Your task to perform on an android device: turn pop-ups on in chrome Image 0: 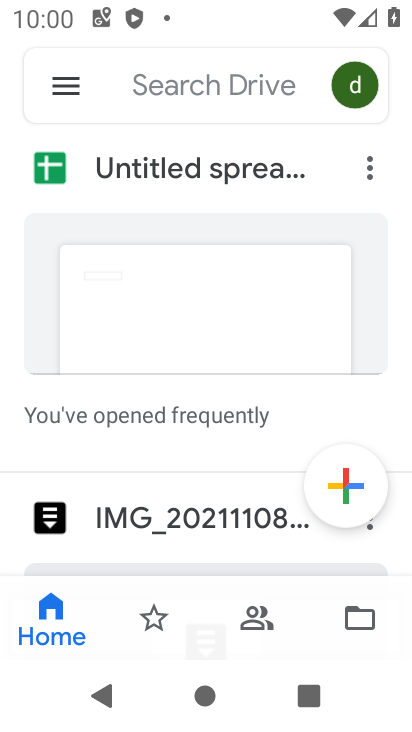
Step 0: press home button
Your task to perform on an android device: turn pop-ups on in chrome Image 1: 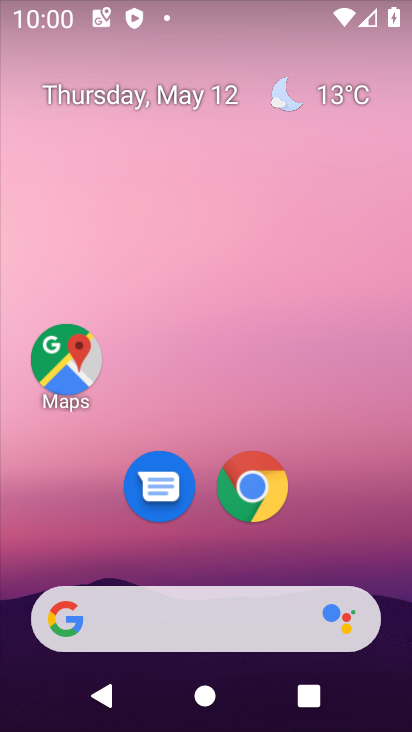
Step 1: click (274, 488)
Your task to perform on an android device: turn pop-ups on in chrome Image 2: 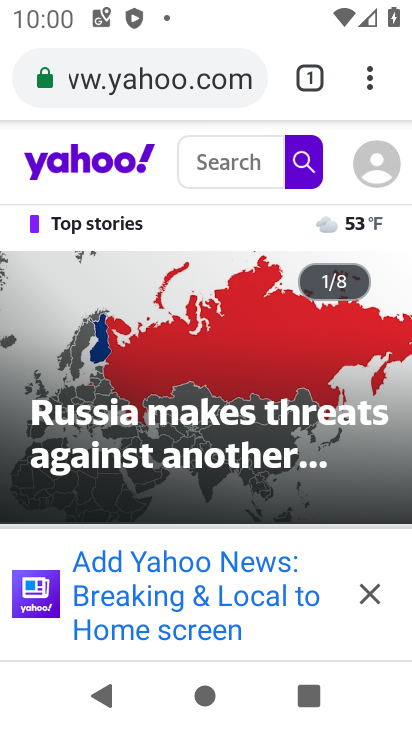
Step 2: click (366, 85)
Your task to perform on an android device: turn pop-ups on in chrome Image 3: 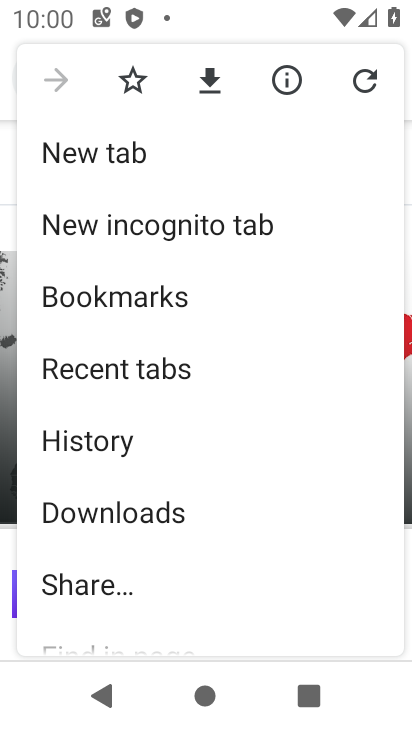
Step 3: drag from (265, 528) to (237, 307)
Your task to perform on an android device: turn pop-ups on in chrome Image 4: 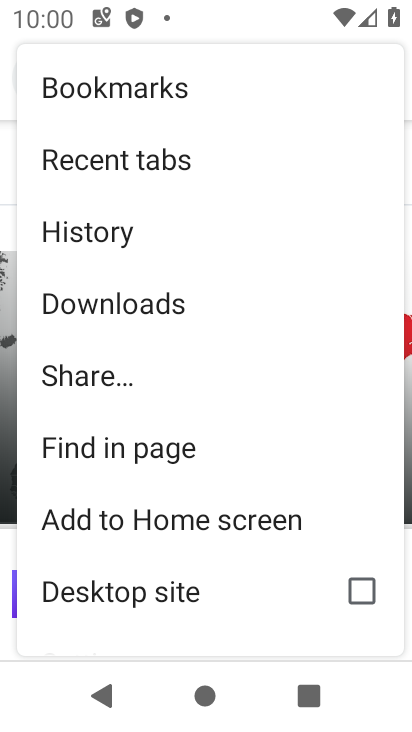
Step 4: drag from (234, 533) to (205, 336)
Your task to perform on an android device: turn pop-ups on in chrome Image 5: 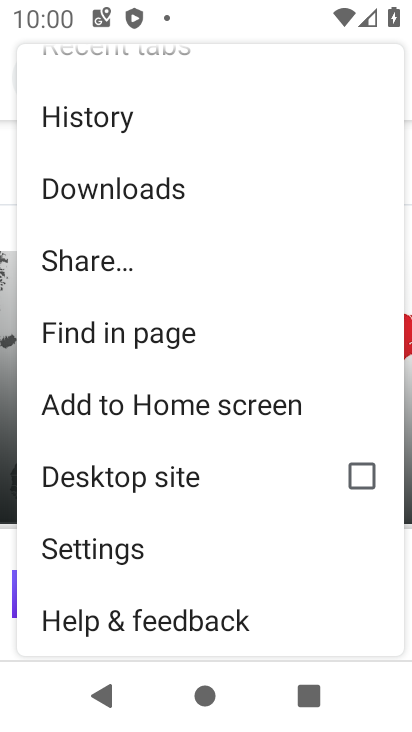
Step 5: click (144, 546)
Your task to perform on an android device: turn pop-ups on in chrome Image 6: 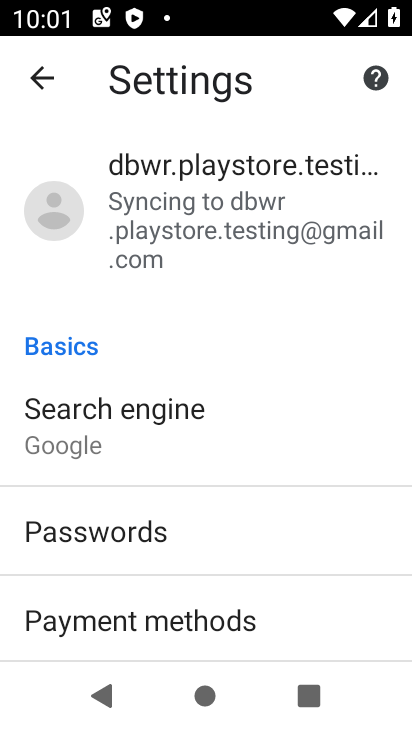
Step 6: drag from (297, 554) to (227, 298)
Your task to perform on an android device: turn pop-ups on in chrome Image 7: 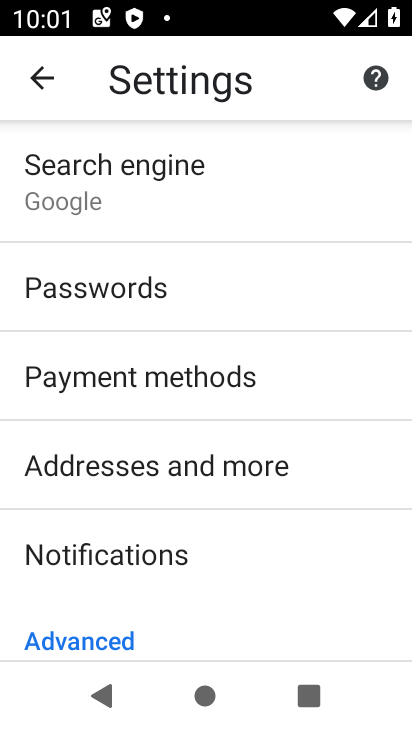
Step 7: drag from (290, 557) to (217, 281)
Your task to perform on an android device: turn pop-ups on in chrome Image 8: 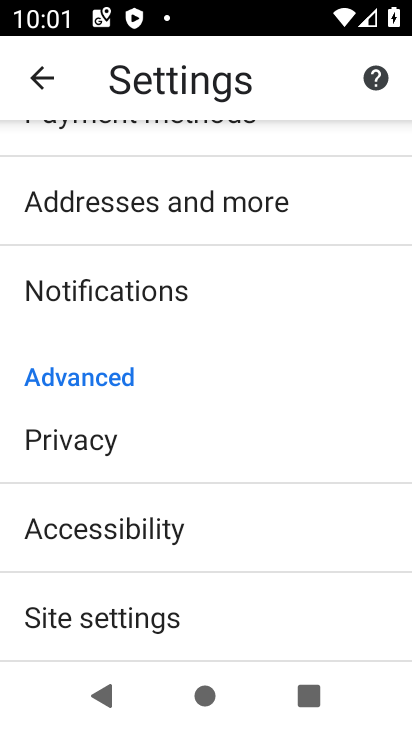
Step 8: click (230, 604)
Your task to perform on an android device: turn pop-ups on in chrome Image 9: 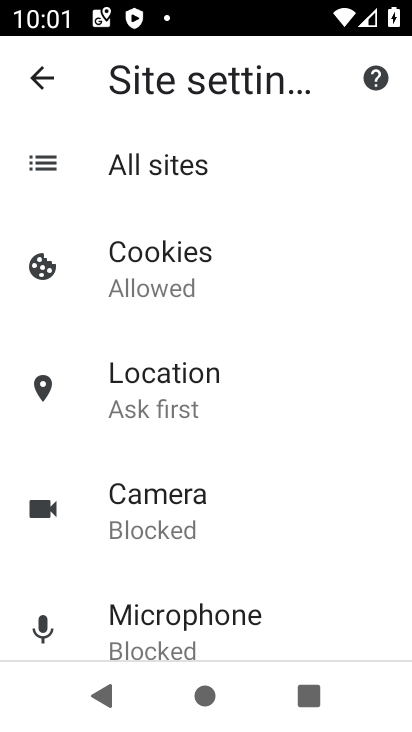
Step 9: drag from (326, 634) to (272, 283)
Your task to perform on an android device: turn pop-ups on in chrome Image 10: 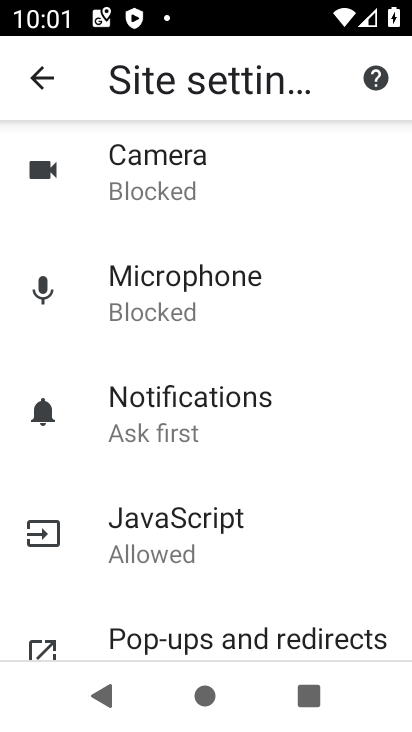
Step 10: drag from (289, 551) to (244, 317)
Your task to perform on an android device: turn pop-ups on in chrome Image 11: 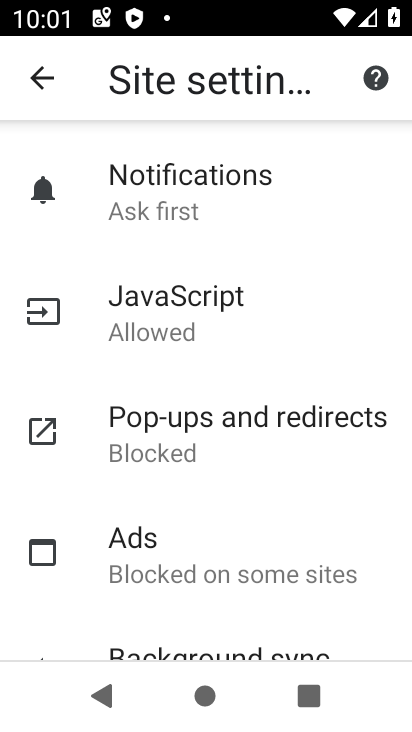
Step 11: click (175, 424)
Your task to perform on an android device: turn pop-ups on in chrome Image 12: 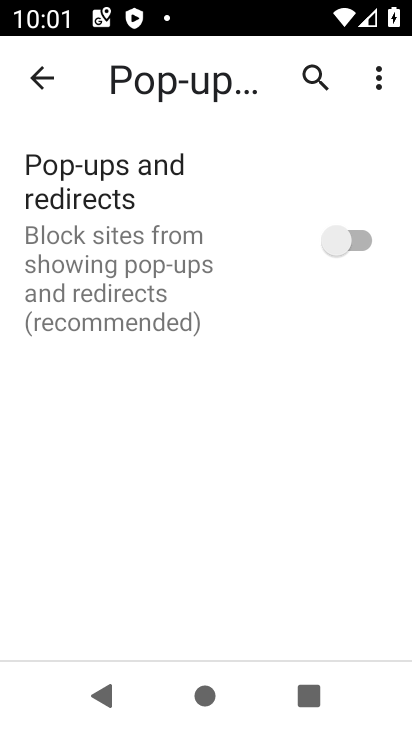
Step 12: click (357, 240)
Your task to perform on an android device: turn pop-ups on in chrome Image 13: 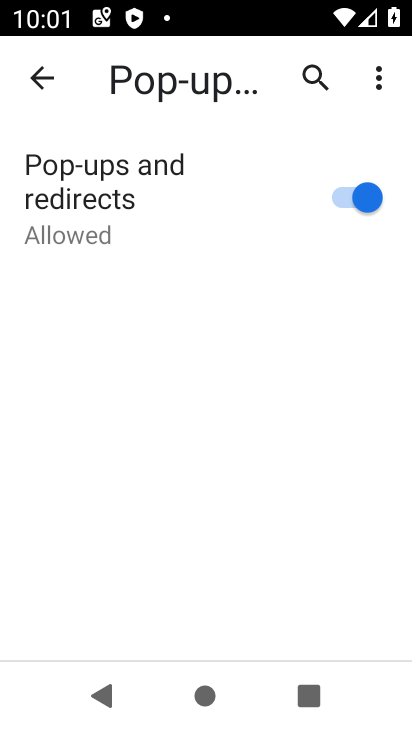
Step 13: task complete